Your task to perform on an android device: turn off translation in the chrome app Image 0: 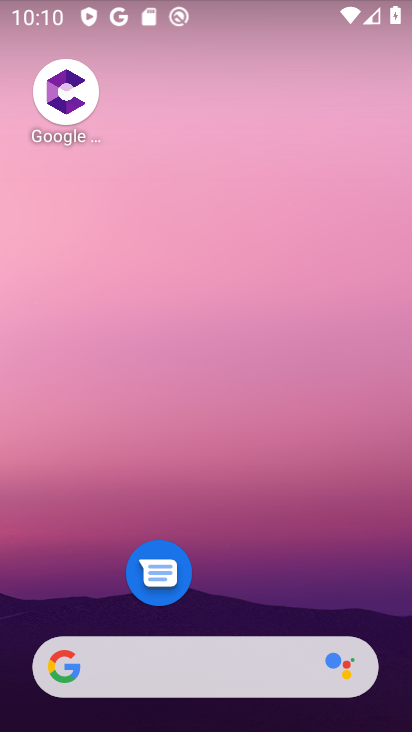
Step 0: drag from (218, 619) to (150, 7)
Your task to perform on an android device: turn off translation in the chrome app Image 1: 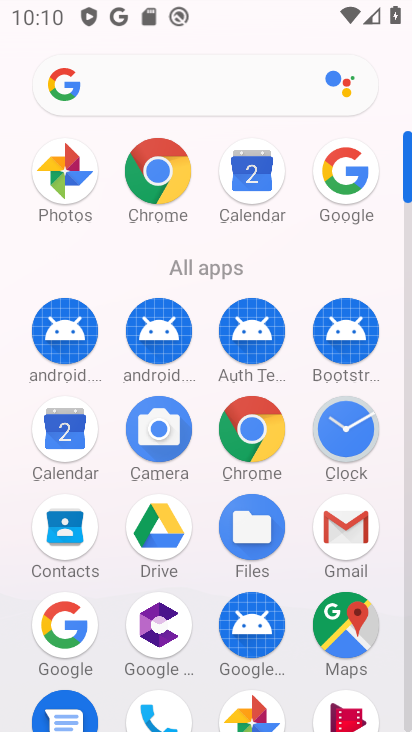
Step 1: click (240, 434)
Your task to perform on an android device: turn off translation in the chrome app Image 2: 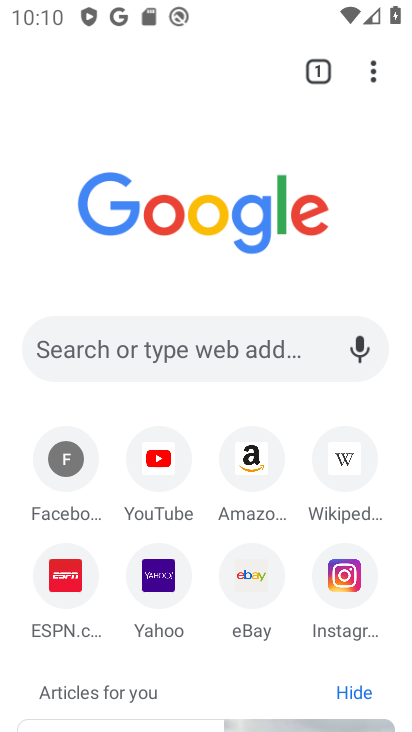
Step 2: drag from (370, 70) to (142, 604)
Your task to perform on an android device: turn off translation in the chrome app Image 3: 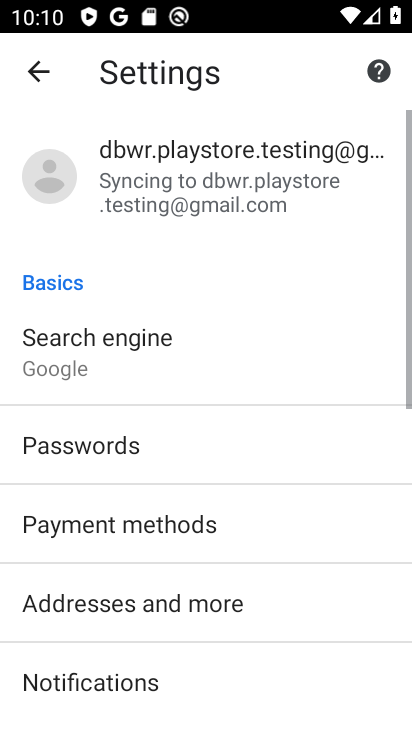
Step 3: drag from (142, 604) to (81, 167)
Your task to perform on an android device: turn off translation in the chrome app Image 4: 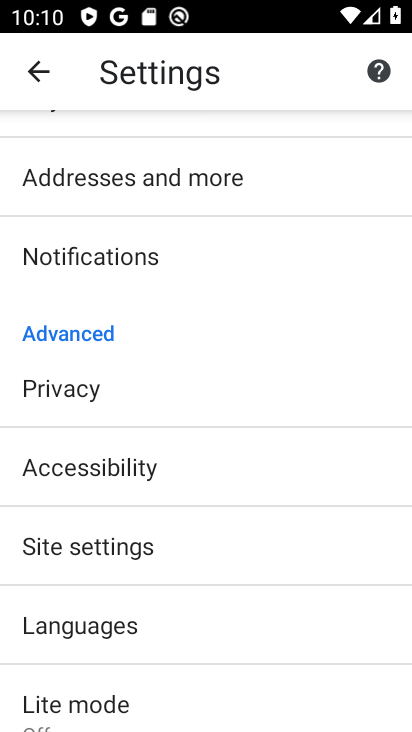
Step 4: click (108, 646)
Your task to perform on an android device: turn off translation in the chrome app Image 5: 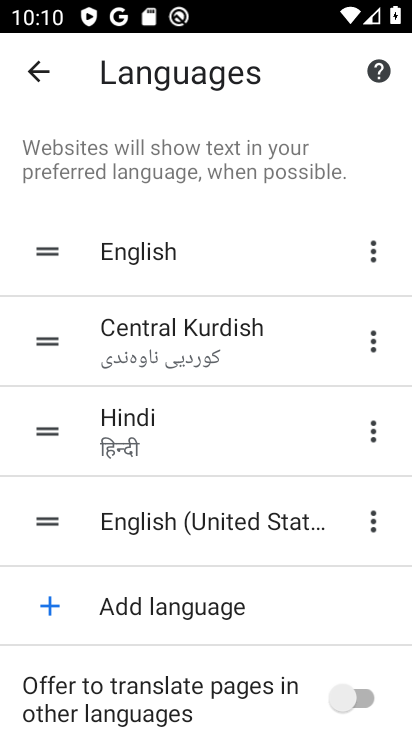
Step 5: task complete